Your task to perform on an android device: turn on bluetooth scan Image 0: 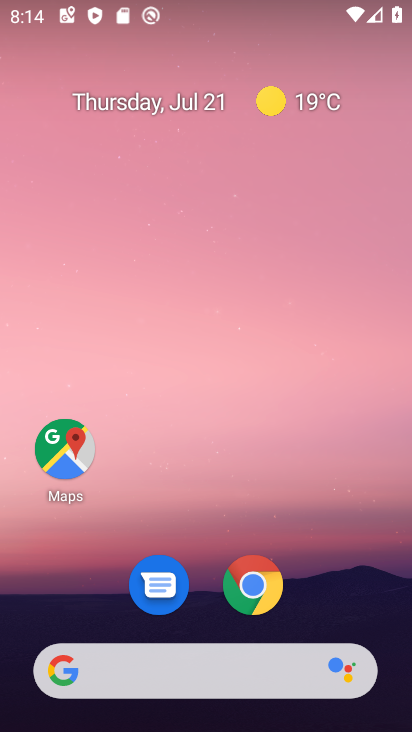
Step 0: drag from (327, 586) to (326, 54)
Your task to perform on an android device: turn on bluetooth scan Image 1: 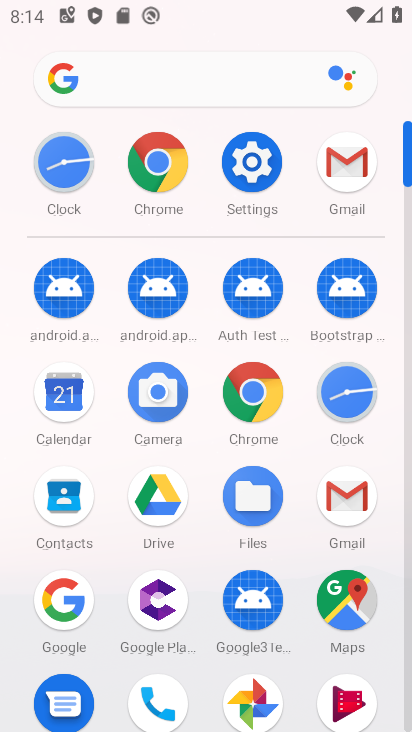
Step 1: click (260, 159)
Your task to perform on an android device: turn on bluetooth scan Image 2: 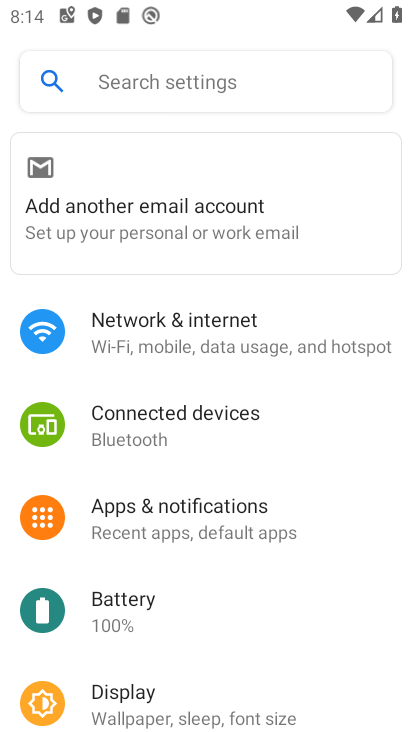
Step 2: drag from (239, 644) to (194, 10)
Your task to perform on an android device: turn on bluetooth scan Image 3: 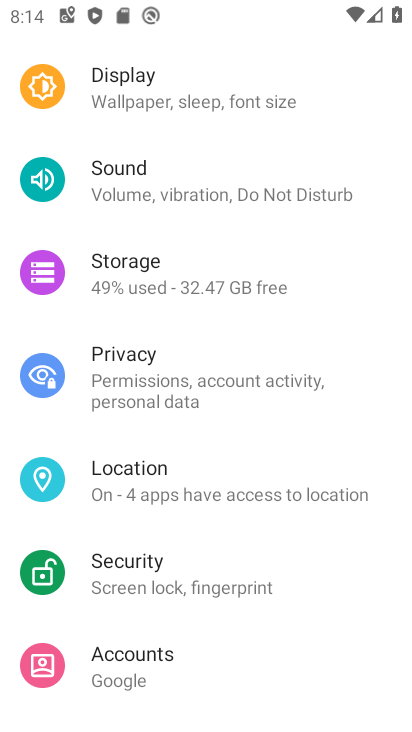
Step 3: click (208, 490)
Your task to perform on an android device: turn on bluetooth scan Image 4: 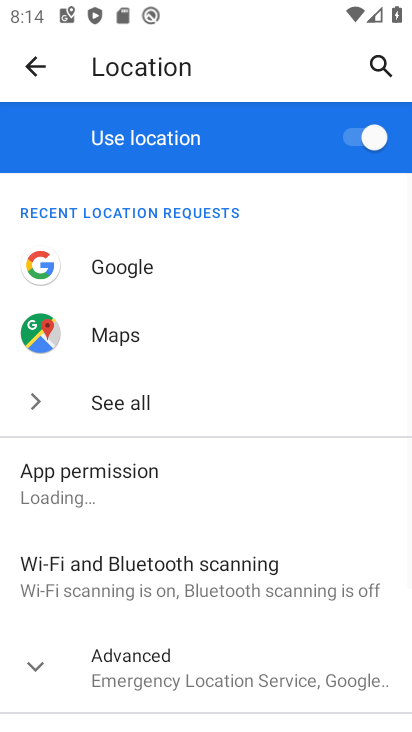
Step 4: click (239, 589)
Your task to perform on an android device: turn on bluetooth scan Image 5: 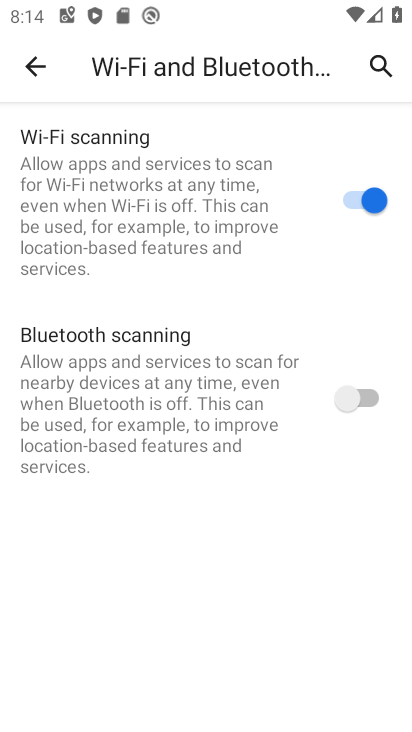
Step 5: click (350, 386)
Your task to perform on an android device: turn on bluetooth scan Image 6: 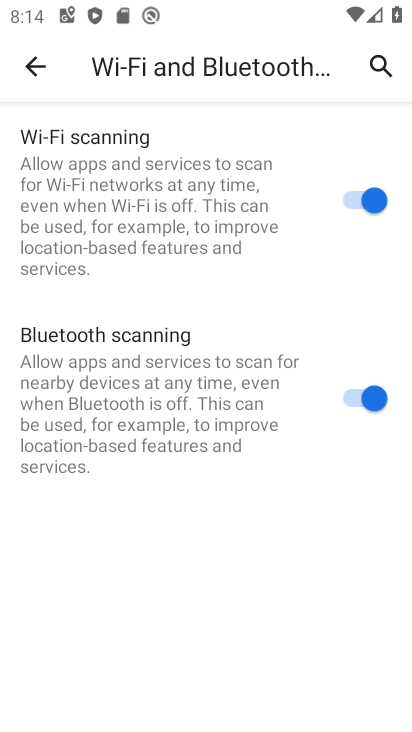
Step 6: task complete